Your task to perform on an android device: Open calendar and show me the third week of next month Image 0: 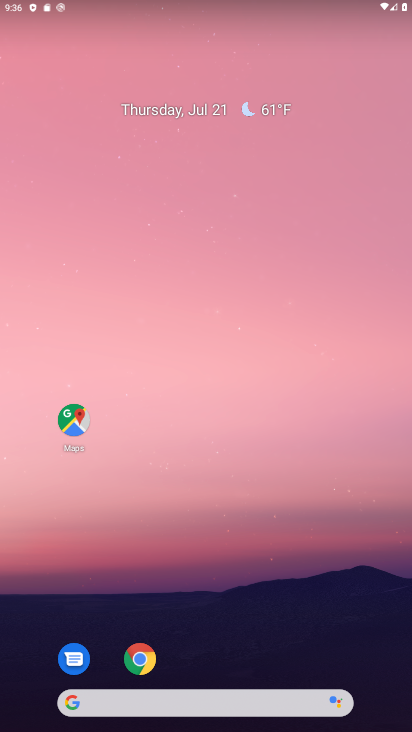
Step 0: drag from (26, 705) to (173, 195)
Your task to perform on an android device: Open calendar and show me the third week of next month Image 1: 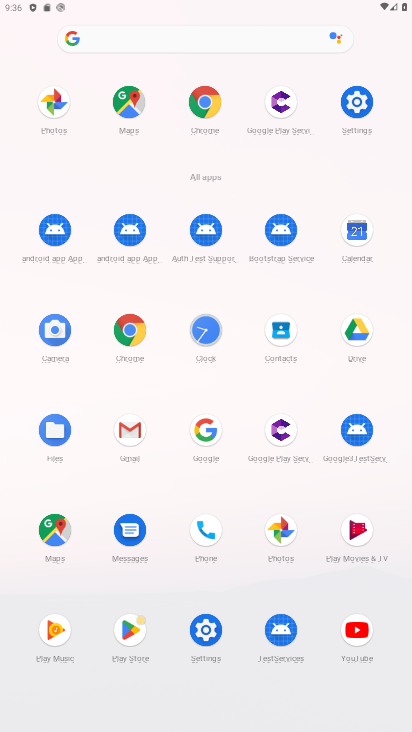
Step 1: click (341, 227)
Your task to perform on an android device: Open calendar and show me the third week of next month Image 2: 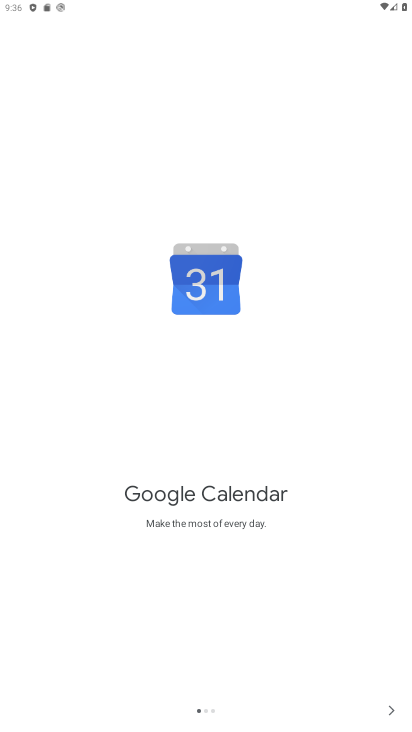
Step 2: click (387, 711)
Your task to perform on an android device: Open calendar and show me the third week of next month Image 3: 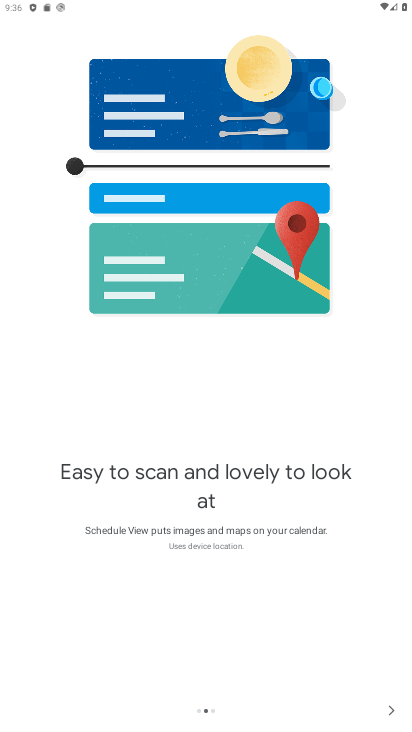
Step 3: click (382, 705)
Your task to perform on an android device: Open calendar and show me the third week of next month Image 4: 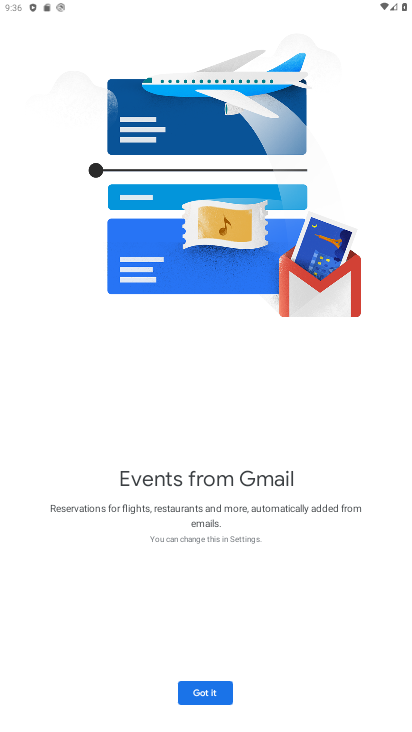
Step 4: click (190, 686)
Your task to perform on an android device: Open calendar and show me the third week of next month Image 5: 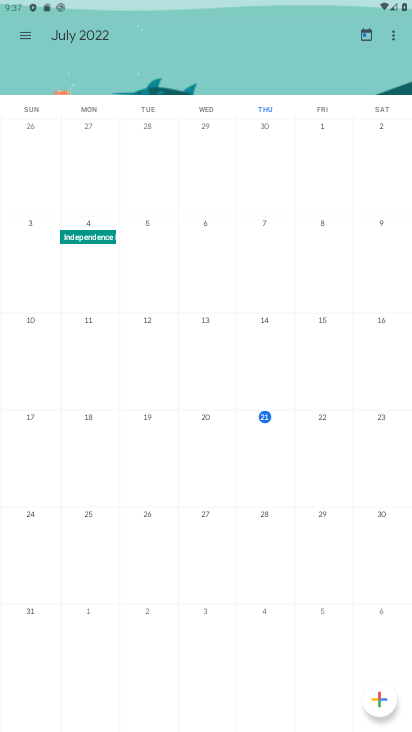
Step 5: drag from (337, 236) to (11, 251)
Your task to perform on an android device: Open calendar and show me the third week of next month Image 6: 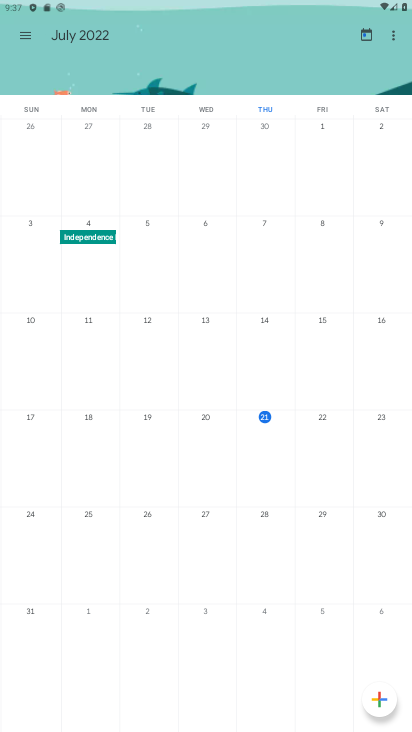
Step 6: drag from (377, 381) to (6, 334)
Your task to perform on an android device: Open calendar and show me the third week of next month Image 7: 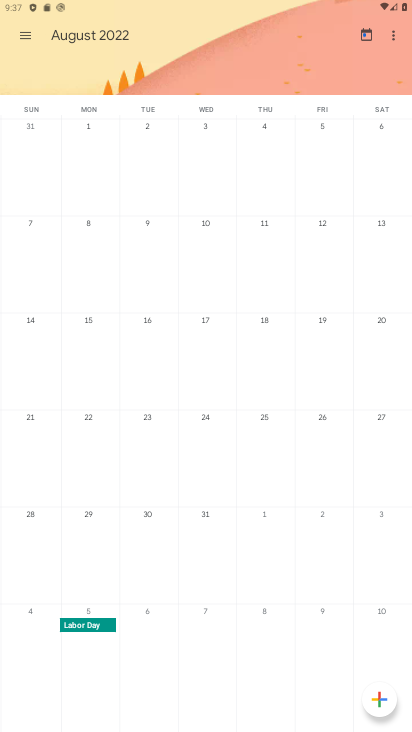
Step 7: click (86, 313)
Your task to perform on an android device: Open calendar and show me the third week of next month Image 8: 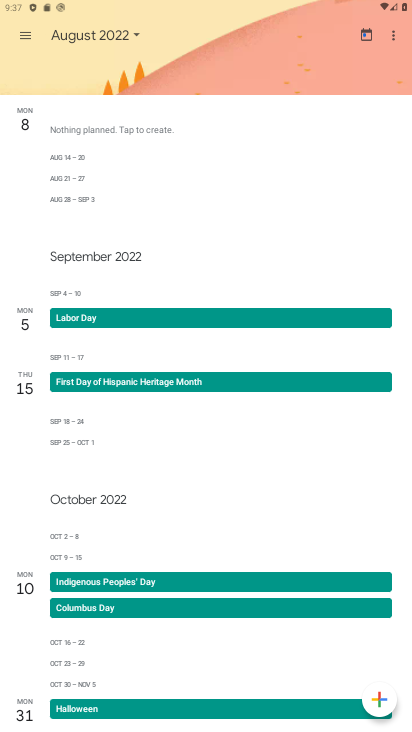
Step 8: click (128, 37)
Your task to perform on an android device: Open calendar and show me the third week of next month Image 9: 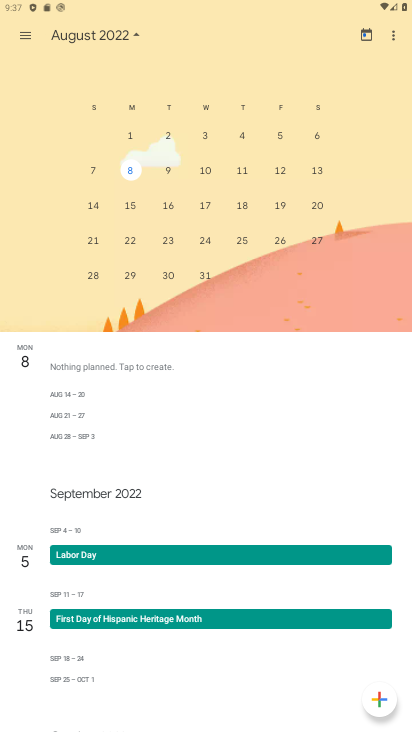
Step 9: click (131, 198)
Your task to perform on an android device: Open calendar and show me the third week of next month Image 10: 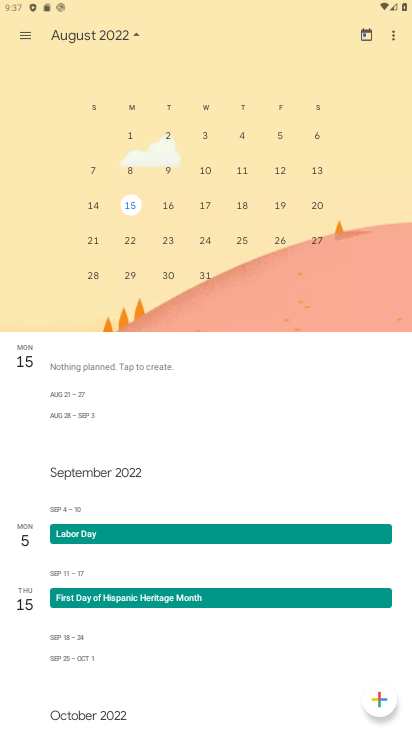
Step 10: task complete